Your task to perform on an android device: Open location settings Image 0: 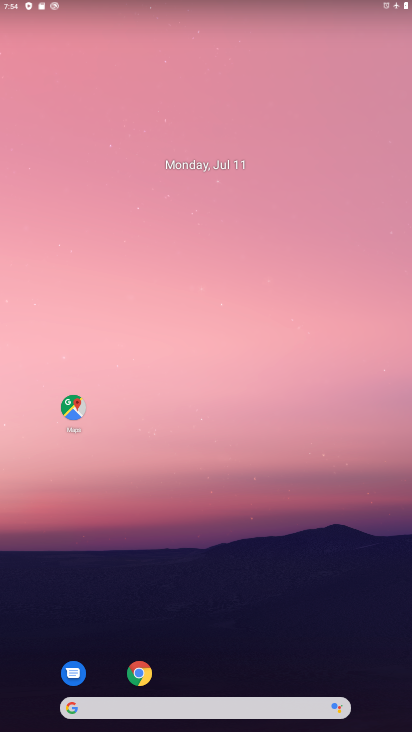
Step 0: drag from (379, 627) to (244, 92)
Your task to perform on an android device: Open location settings Image 1: 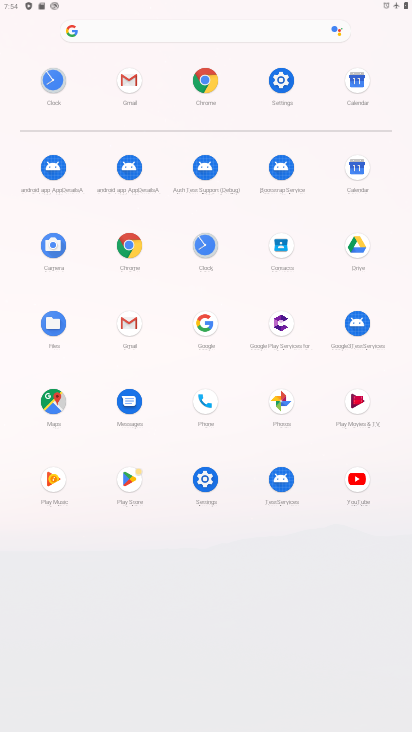
Step 1: click (283, 75)
Your task to perform on an android device: Open location settings Image 2: 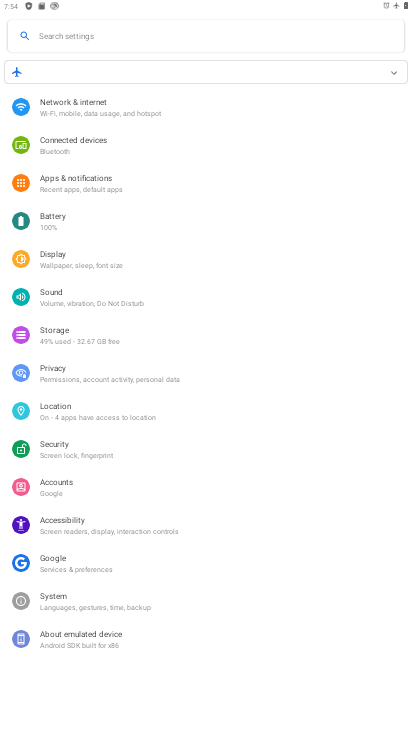
Step 2: click (79, 416)
Your task to perform on an android device: Open location settings Image 3: 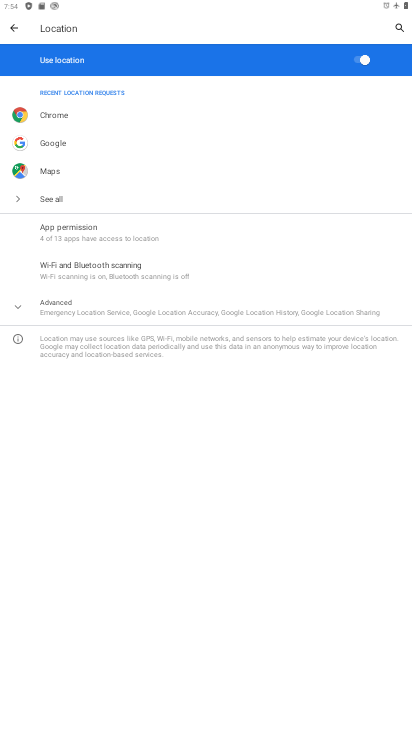
Step 3: task complete